Your task to perform on an android device: turn off priority inbox in the gmail app Image 0: 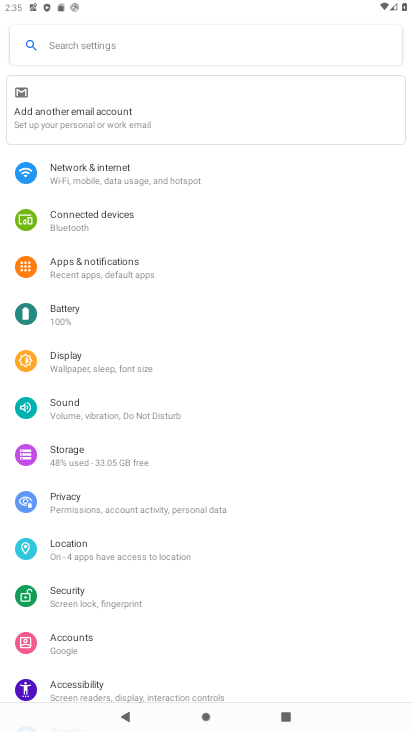
Step 0: task impossible